Your task to perform on an android device: toggle location history Image 0: 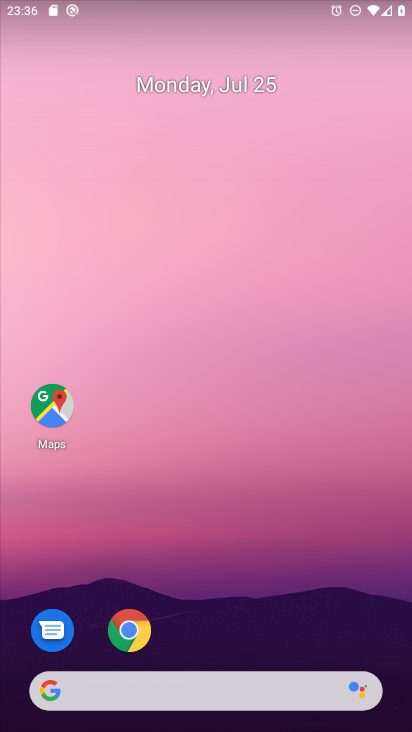
Step 0: drag from (277, 613) to (287, 223)
Your task to perform on an android device: toggle location history Image 1: 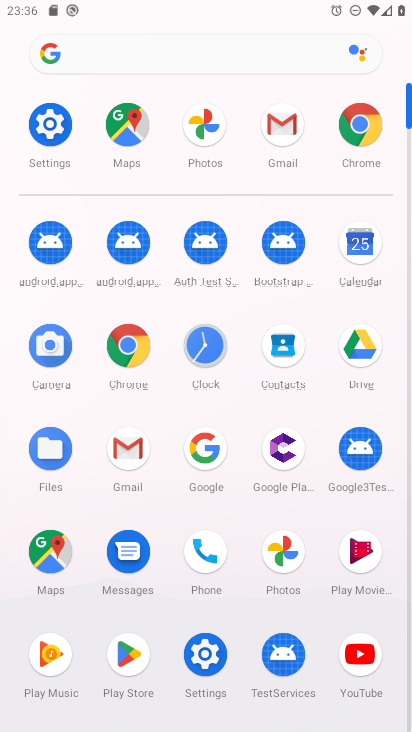
Step 1: click (49, 117)
Your task to perform on an android device: toggle location history Image 2: 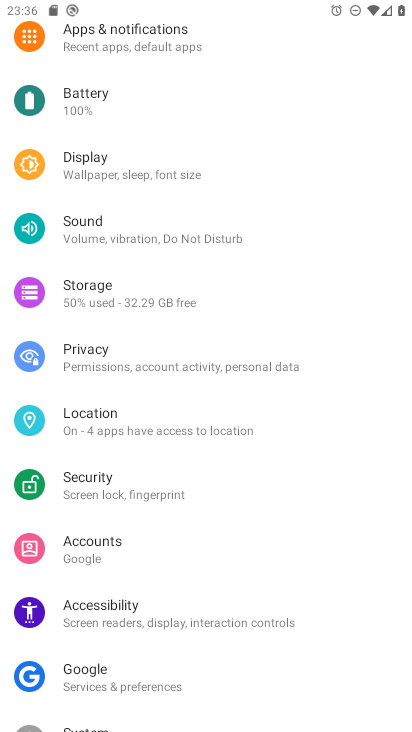
Step 2: click (119, 425)
Your task to perform on an android device: toggle location history Image 3: 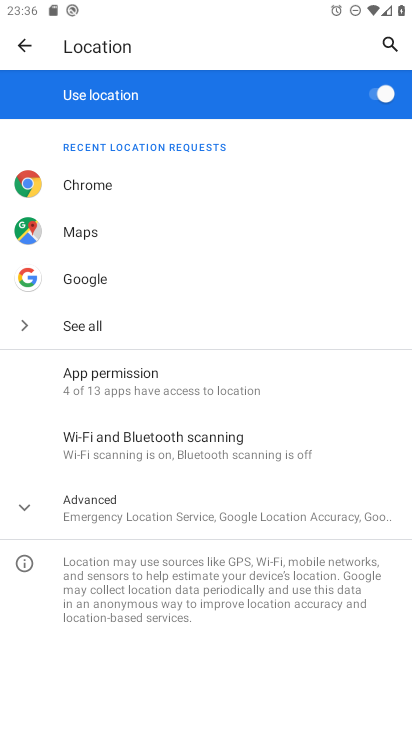
Step 3: click (86, 517)
Your task to perform on an android device: toggle location history Image 4: 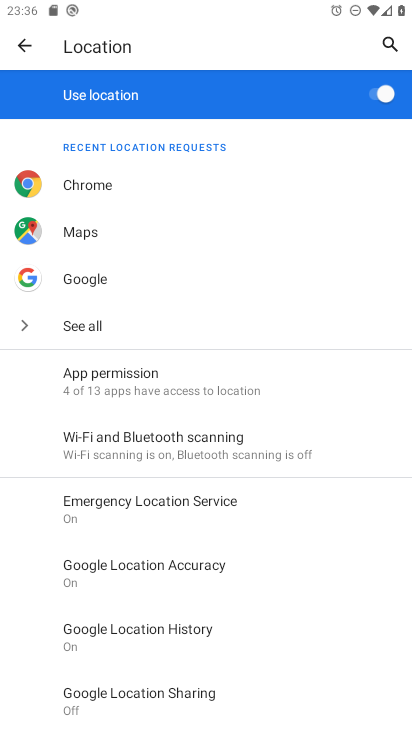
Step 4: click (135, 617)
Your task to perform on an android device: toggle location history Image 5: 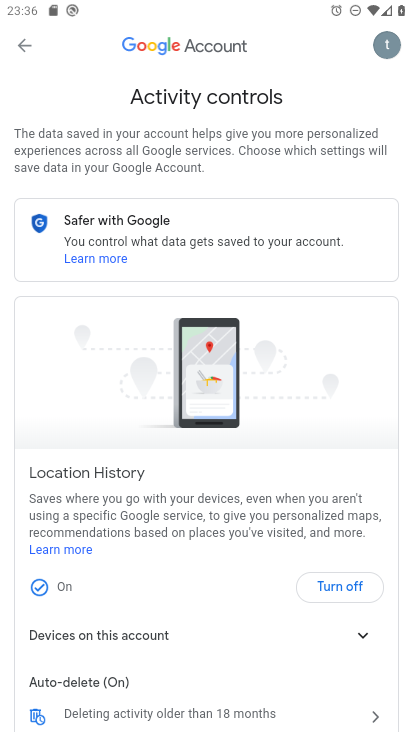
Step 5: click (360, 580)
Your task to perform on an android device: toggle location history Image 6: 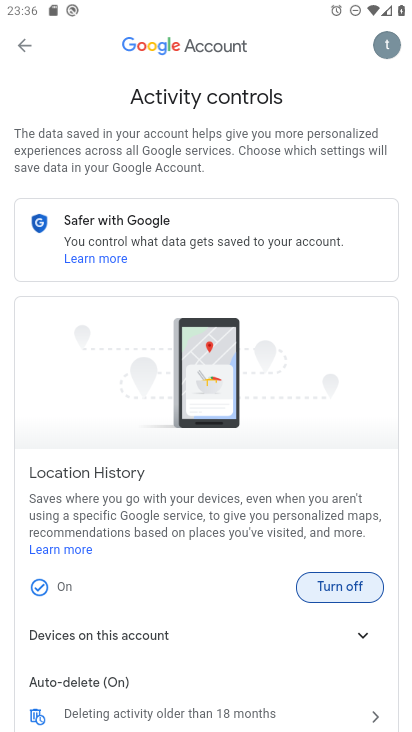
Step 6: click (340, 591)
Your task to perform on an android device: toggle location history Image 7: 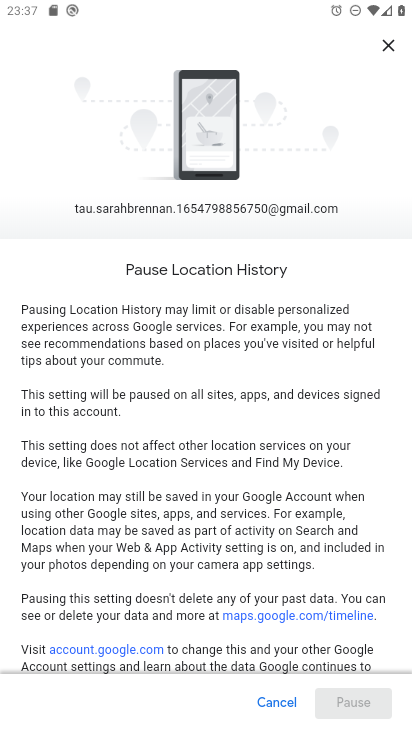
Step 7: drag from (318, 569) to (384, 203)
Your task to perform on an android device: toggle location history Image 8: 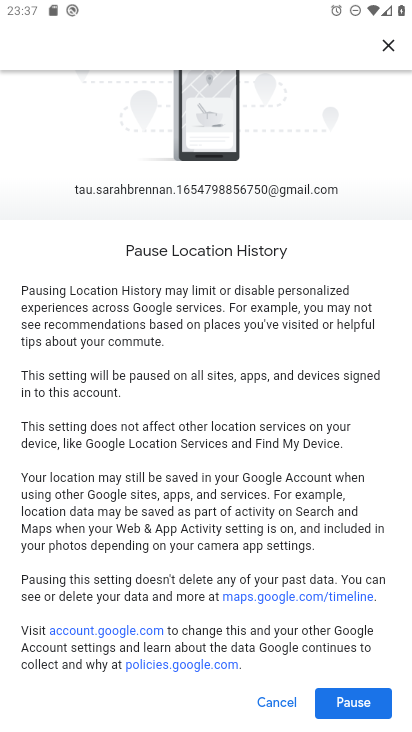
Step 8: click (369, 709)
Your task to perform on an android device: toggle location history Image 9: 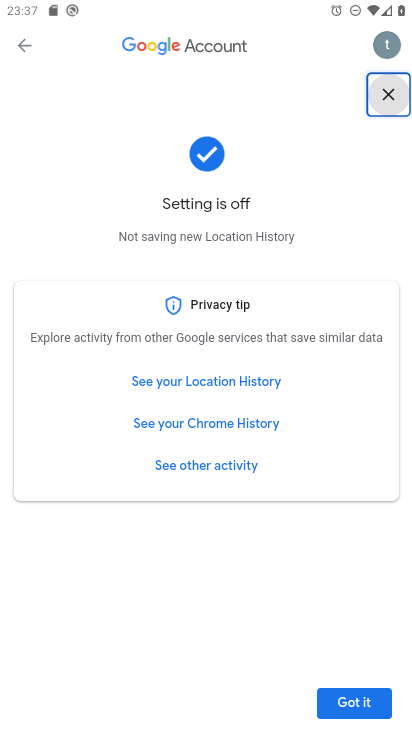
Step 9: task complete